Your task to perform on an android device: stop showing notifications on the lock screen Image 0: 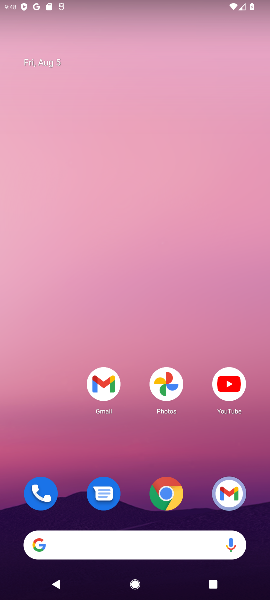
Step 0: press home button
Your task to perform on an android device: stop showing notifications on the lock screen Image 1: 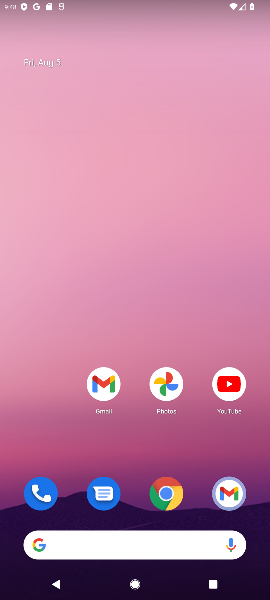
Step 1: drag from (133, 458) to (162, 14)
Your task to perform on an android device: stop showing notifications on the lock screen Image 2: 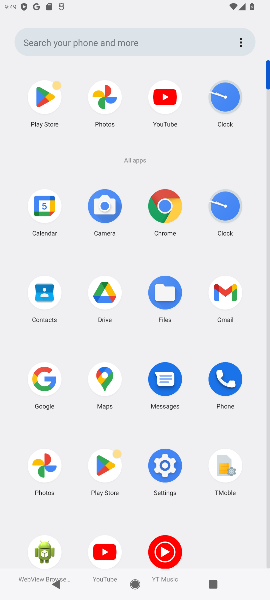
Step 2: click (159, 460)
Your task to perform on an android device: stop showing notifications on the lock screen Image 3: 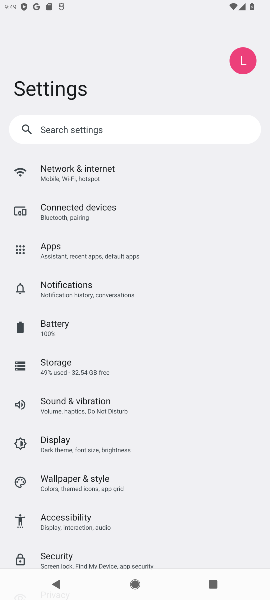
Step 3: click (113, 285)
Your task to perform on an android device: stop showing notifications on the lock screen Image 4: 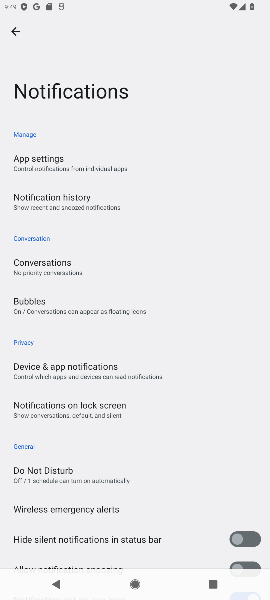
Step 4: click (133, 414)
Your task to perform on an android device: stop showing notifications on the lock screen Image 5: 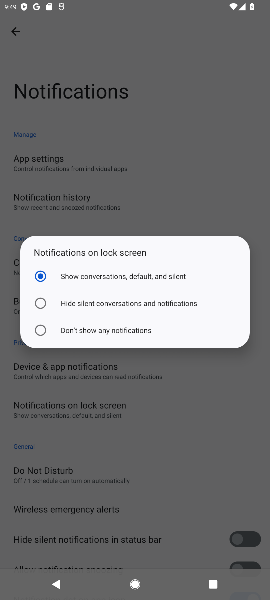
Step 5: click (39, 330)
Your task to perform on an android device: stop showing notifications on the lock screen Image 6: 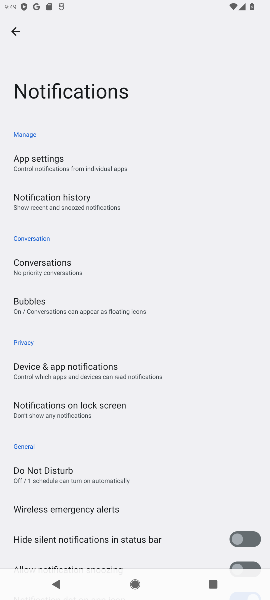
Step 6: task complete